Your task to perform on an android device: add a contact Image 0: 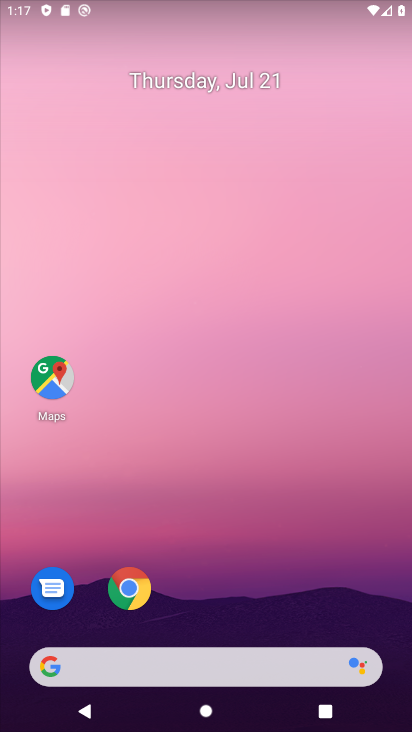
Step 0: drag from (213, 638) to (280, 7)
Your task to perform on an android device: add a contact Image 1: 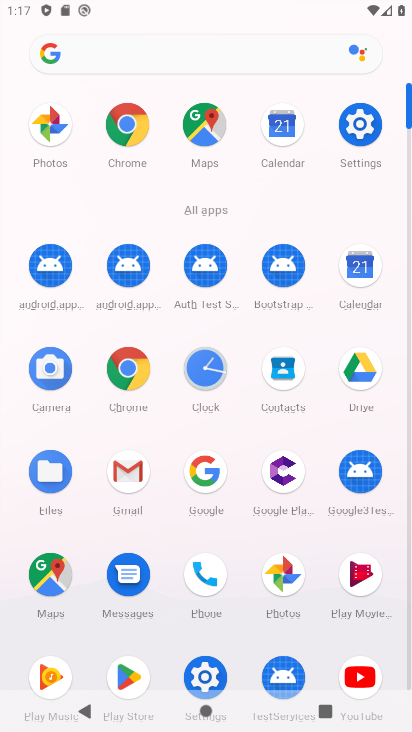
Step 1: click (201, 574)
Your task to perform on an android device: add a contact Image 2: 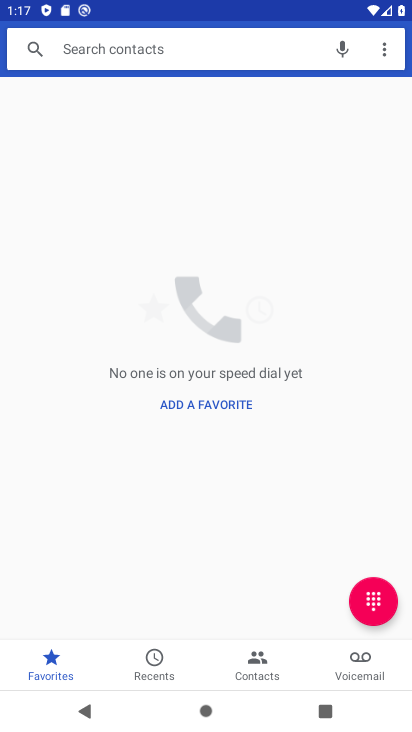
Step 2: click (269, 662)
Your task to perform on an android device: add a contact Image 3: 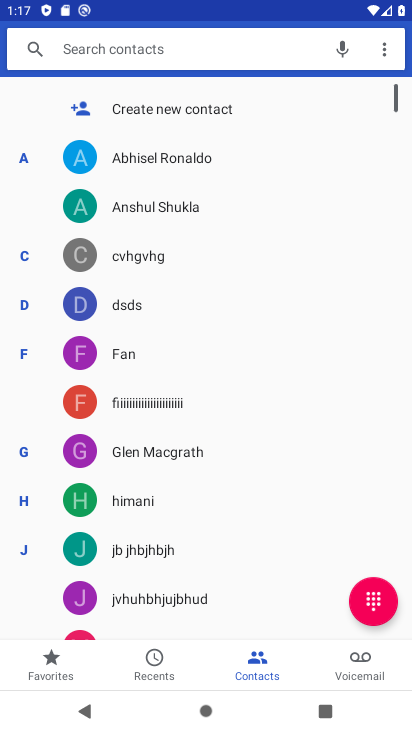
Step 3: click (151, 101)
Your task to perform on an android device: add a contact Image 4: 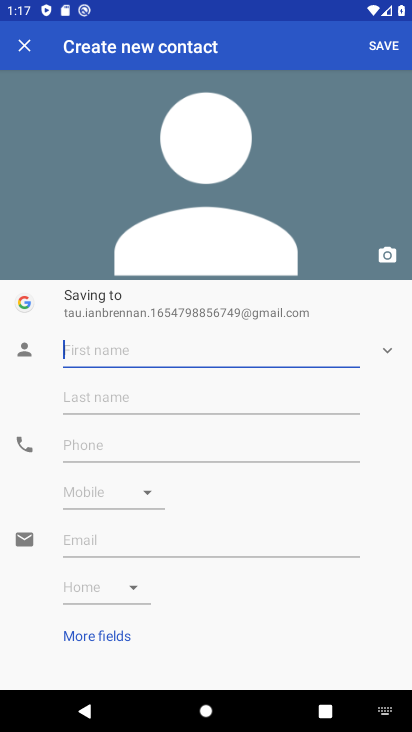
Step 4: type "gg"
Your task to perform on an android device: add a contact Image 5: 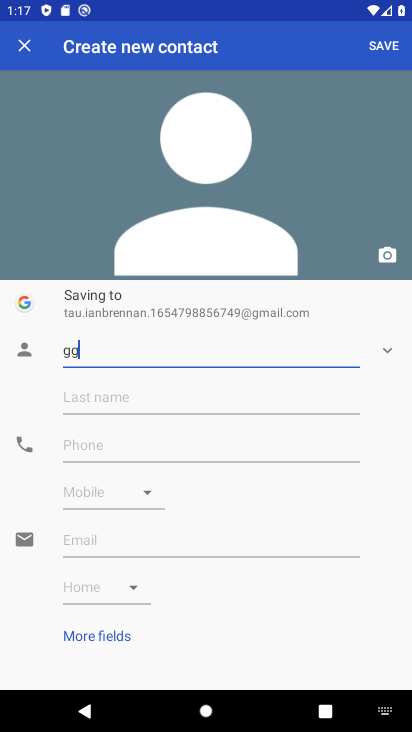
Step 5: type ""
Your task to perform on an android device: add a contact Image 6: 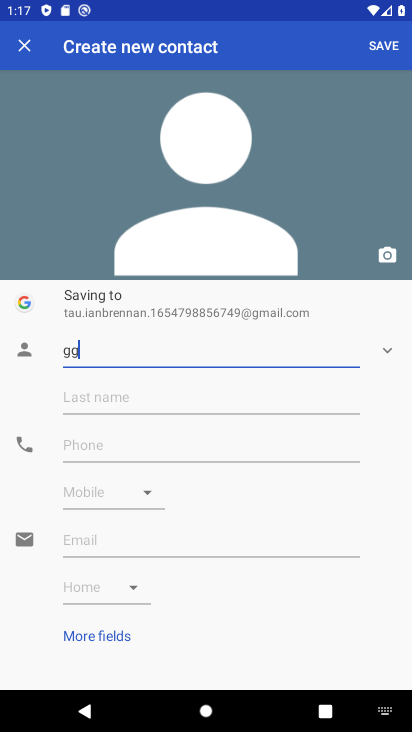
Step 6: click (75, 441)
Your task to perform on an android device: add a contact Image 7: 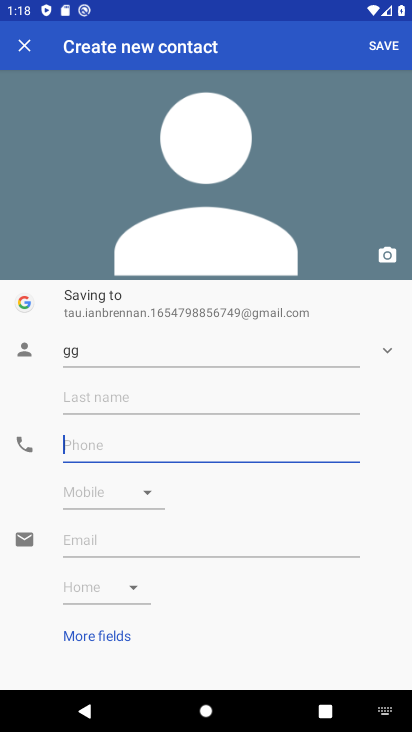
Step 7: type "5434"
Your task to perform on an android device: add a contact Image 8: 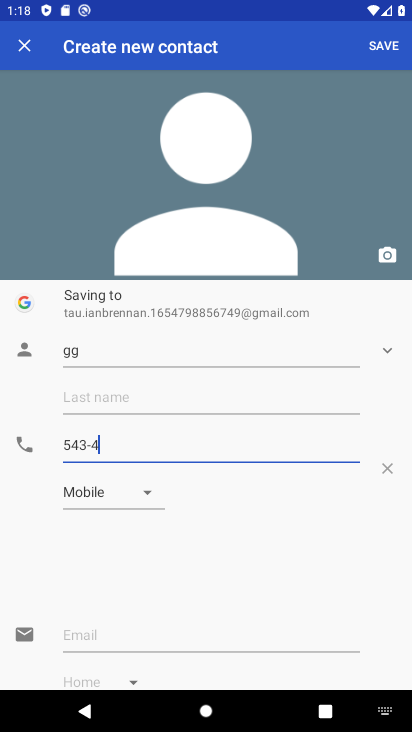
Step 8: type ""
Your task to perform on an android device: add a contact Image 9: 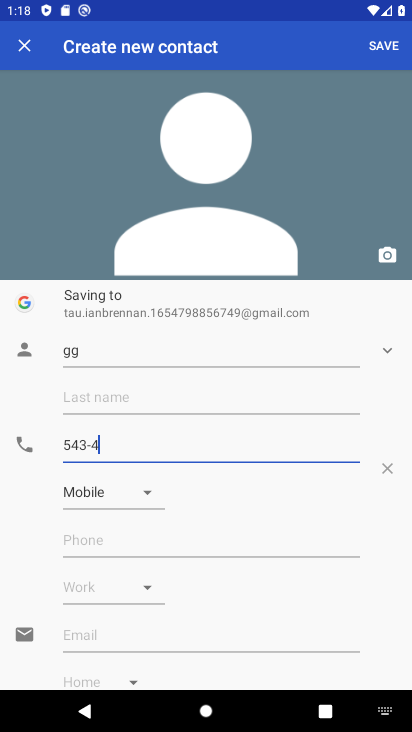
Step 9: click (384, 47)
Your task to perform on an android device: add a contact Image 10: 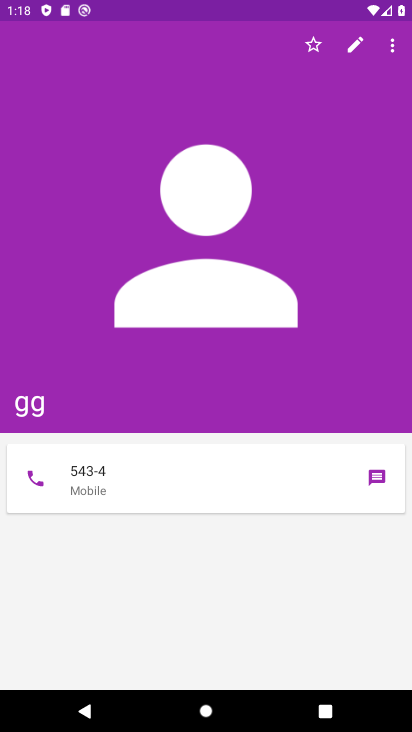
Step 10: task complete